Your task to perform on an android device: What's on my calendar tomorrow? Image 0: 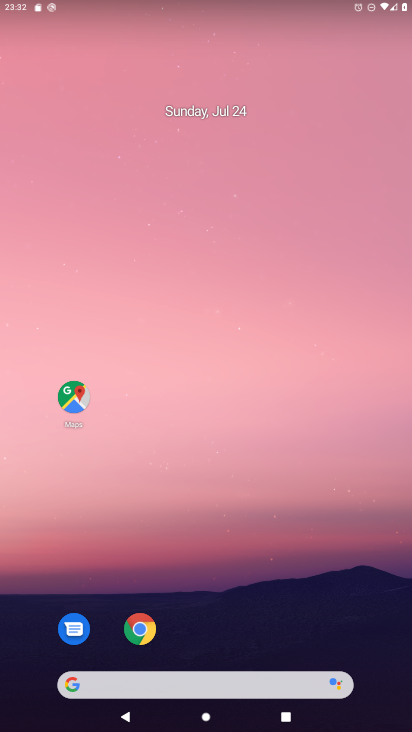
Step 0: drag from (197, 596) to (224, 308)
Your task to perform on an android device: What's on my calendar tomorrow? Image 1: 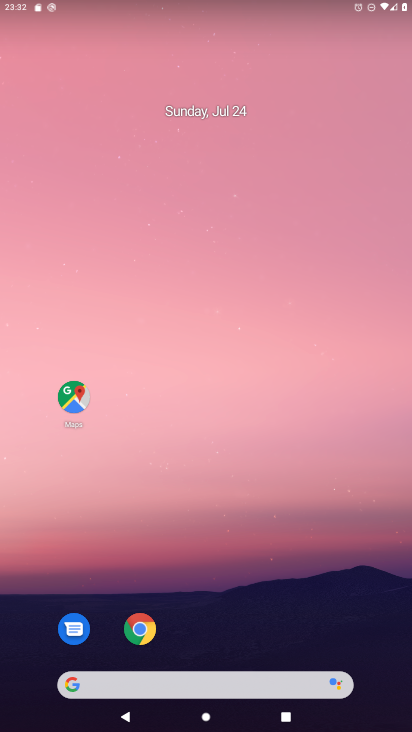
Step 1: drag from (223, 645) to (235, 300)
Your task to perform on an android device: What's on my calendar tomorrow? Image 2: 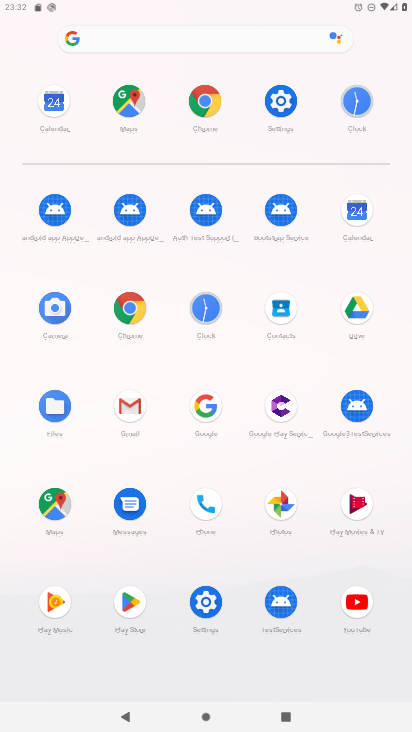
Step 2: click (195, 41)
Your task to perform on an android device: What's on my calendar tomorrow? Image 3: 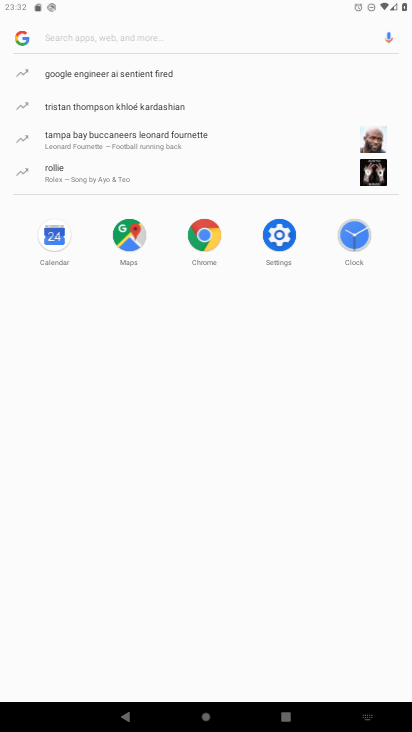
Step 3: press home button
Your task to perform on an android device: What's on my calendar tomorrow? Image 4: 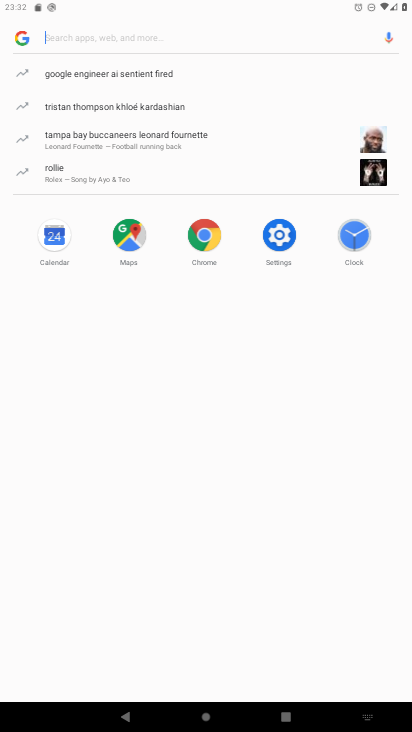
Step 4: press home button
Your task to perform on an android device: What's on my calendar tomorrow? Image 5: 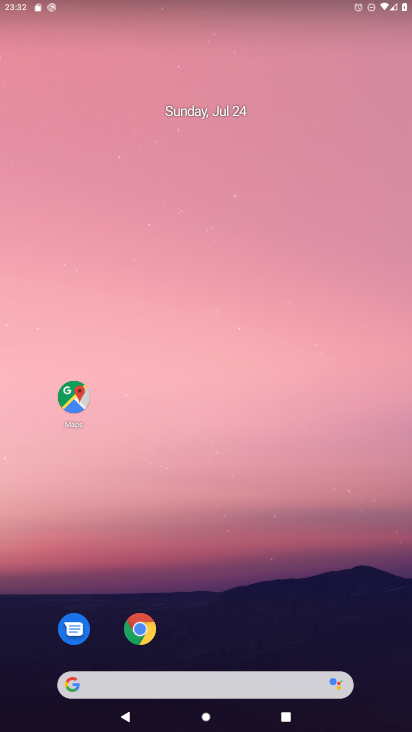
Step 5: drag from (181, 627) to (194, 169)
Your task to perform on an android device: What's on my calendar tomorrow? Image 6: 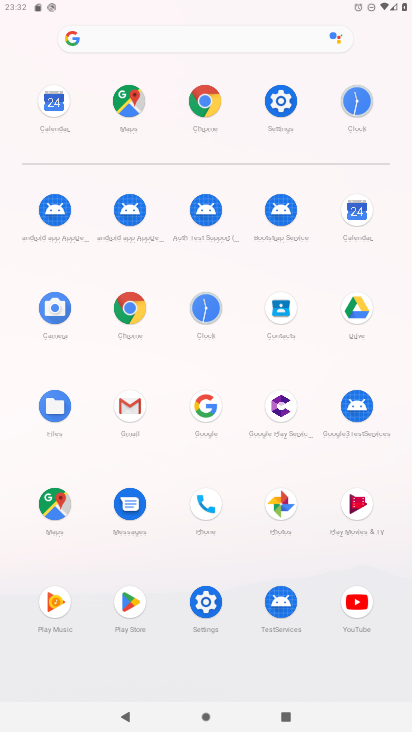
Step 6: click (350, 213)
Your task to perform on an android device: What's on my calendar tomorrow? Image 7: 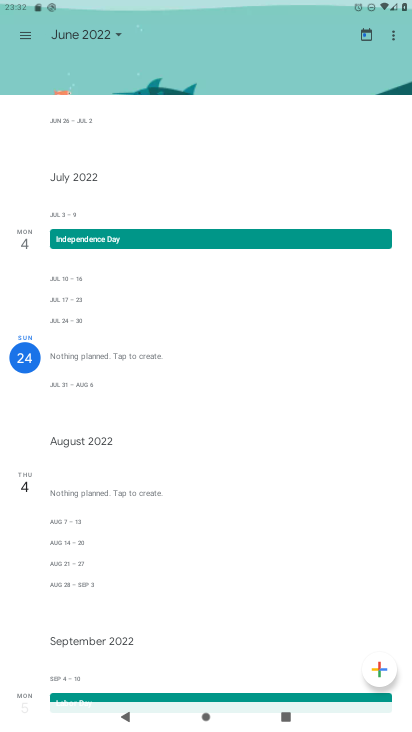
Step 7: click (99, 37)
Your task to perform on an android device: What's on my calendar tomorrow? Image 8: 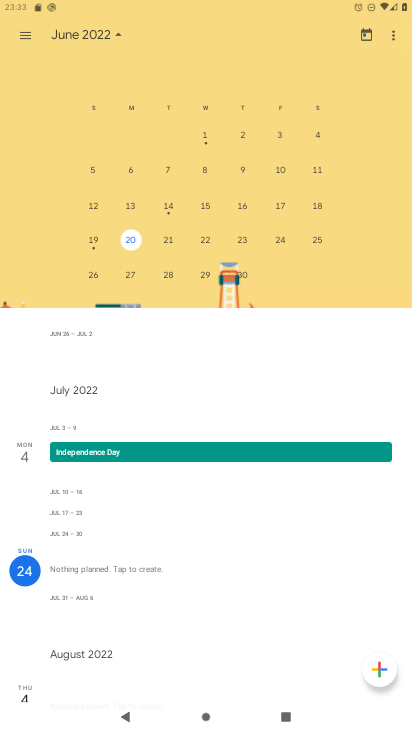
Step 8: click (169, 234)
Your task to perform on an android device: What's on my calendar tomorrow? Image 9: 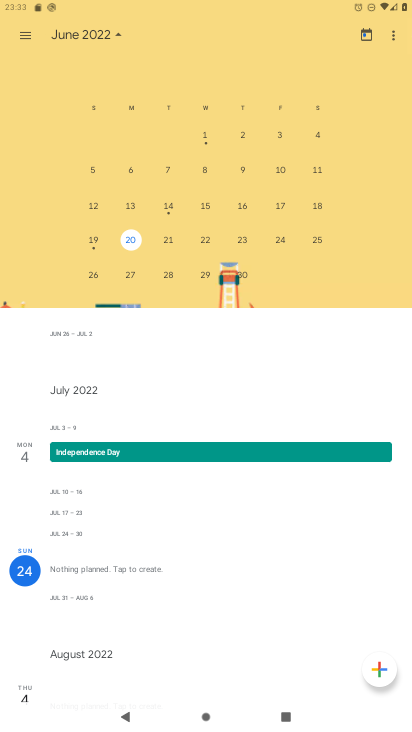
Step 9: click (162, 235)
Your task to perform on an android device: What's on my calendar tomorrow? Image 10: 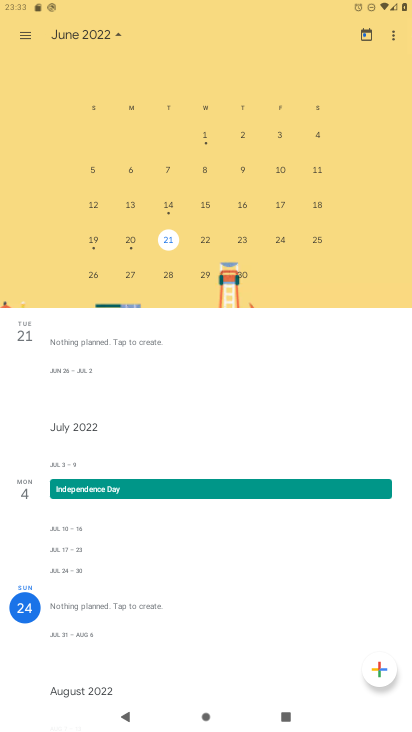
Step 10: task complete